Your task to perform on an android device: Open Youtube and go to "Your channel" Image 0: 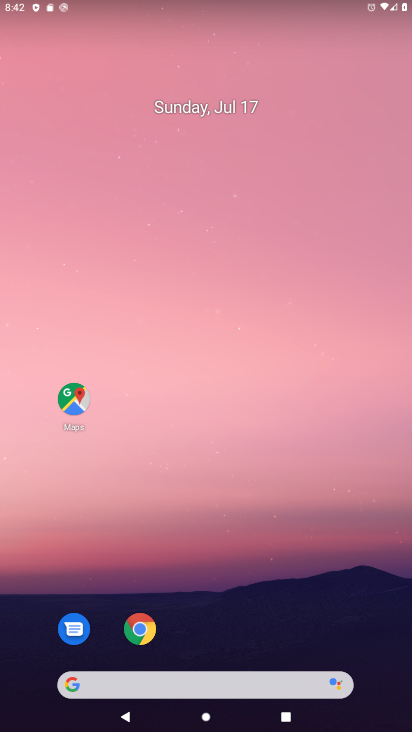
Step 0: drag from (284, 614) to (384, 1)
Your task to perform on an android device: Open Youtube and go to "Your channel" Image 1: 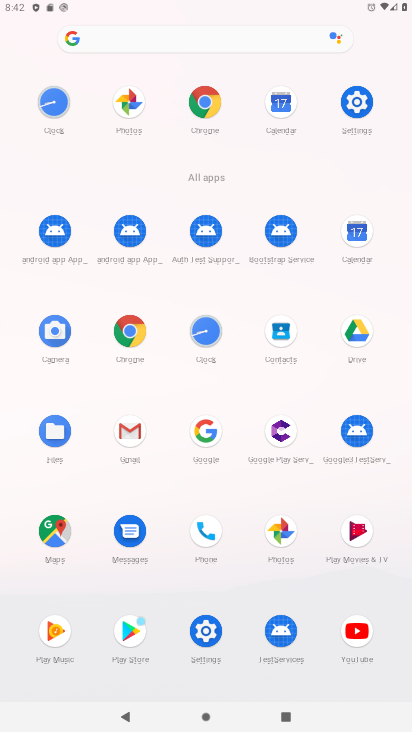
Step 1: click (352, 634)
Your task to perform on an android device: Open Youtube and go to "Your channel" Image 2: 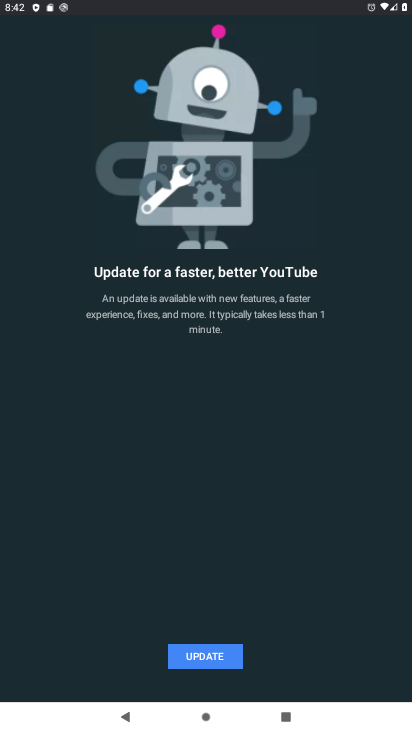
Step 2: click (213, 652)
Your task to perform on an android device: Open Youtube and go to "Your channel" Image 3: 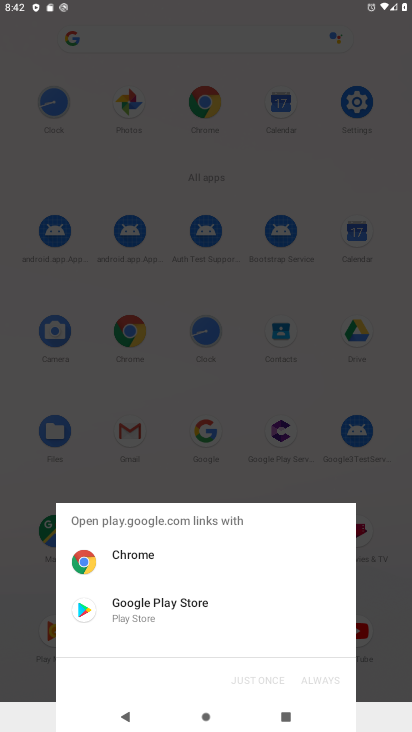
Step 3: click (149, 610)
Your task to perform on an android device: Open Youtube and go to "Your channel" Image 4: 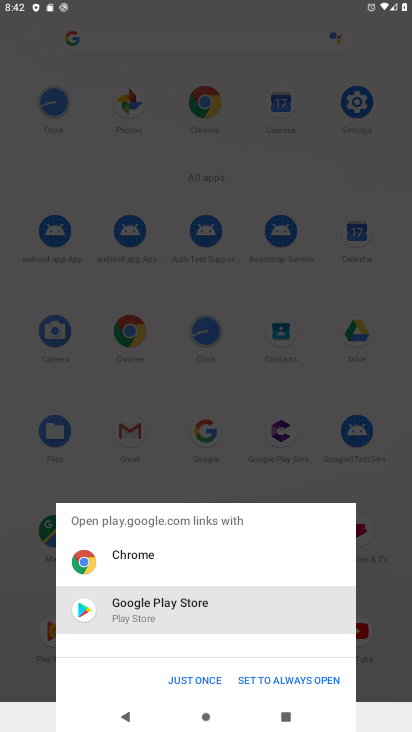
Step 4: click (215, 675)
Your task to perform on an android device: Open Youtube and go to "Your channel" Image 5: 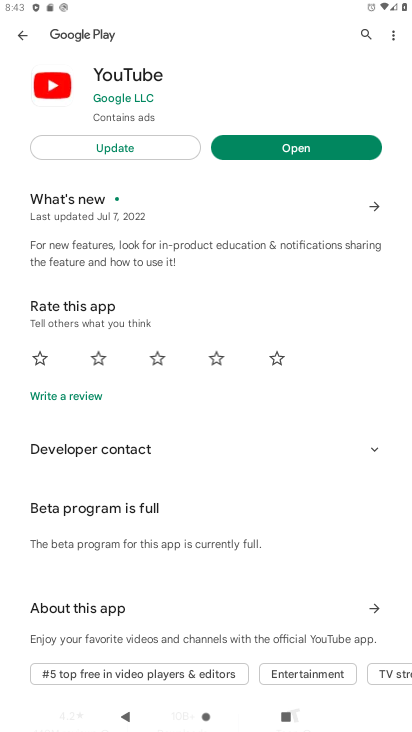
Step 5: click (138, 154)
Your task to perform on an android device: Open Youtube and go to "Your channel" Image 6: 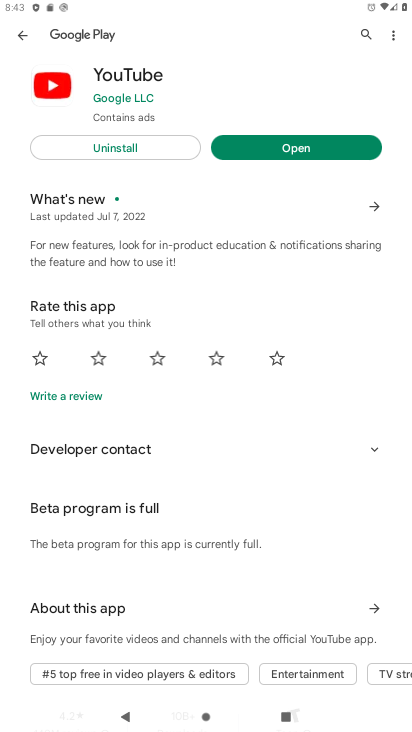
Step 6: click (307, 140)
Your task to perform on an android device: Open Youtube and go to "Your channel" Image 7: 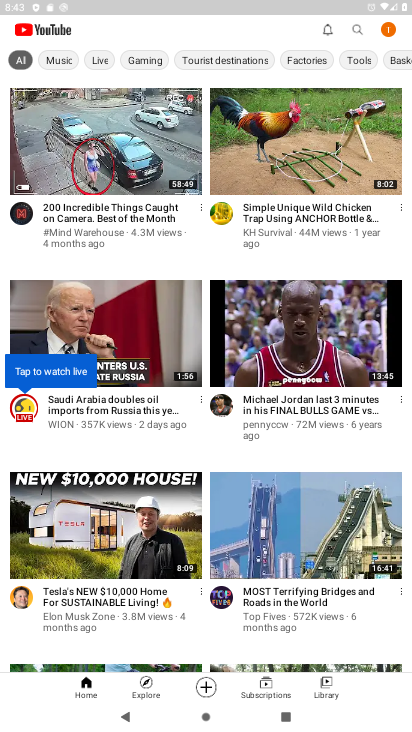
Step 7: click (389, 26)
Your task to perform on an android device: Open Youtube and go to "Your channel" Image 8: 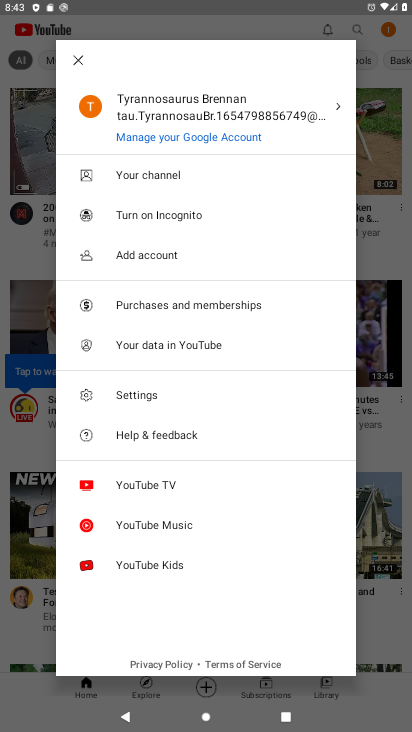
Step 8: click (99, 175)
Your task to perform on an android device: Open Youtube and go to "Your channel" Image 9: 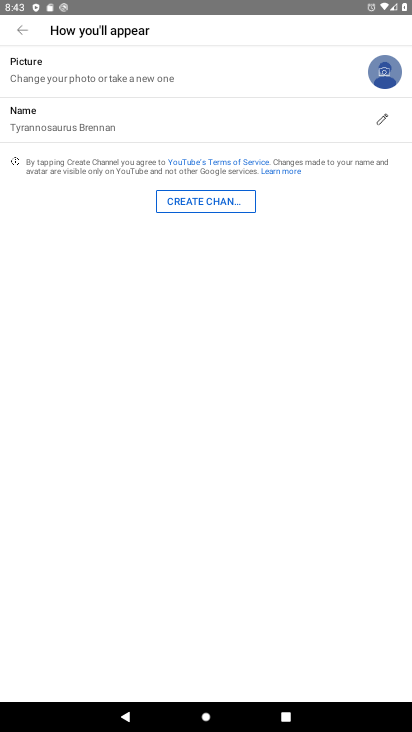
Step 9: task complete